Your task to perform on an android device: make emails show in primary in the gmail app Image 0: 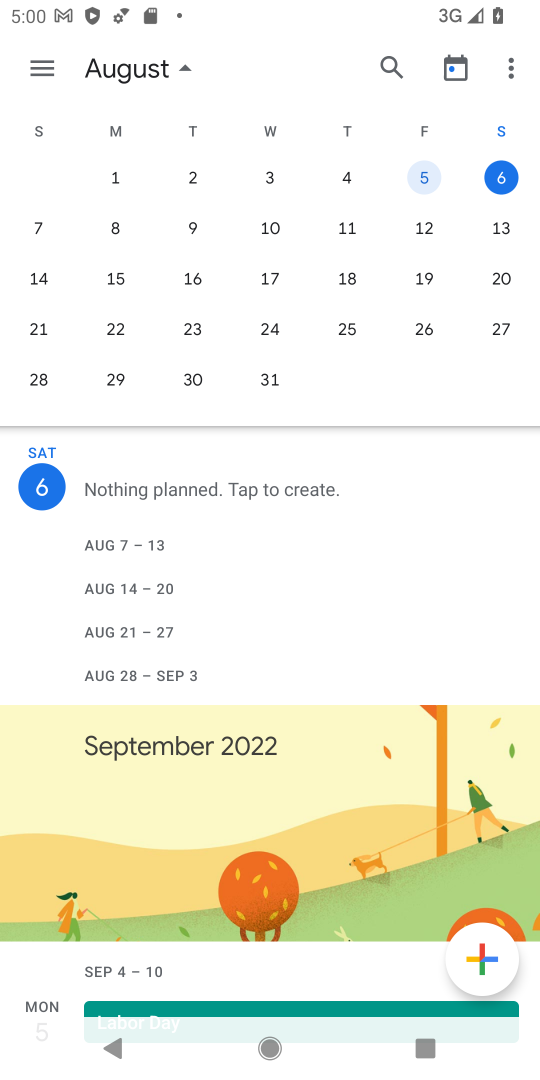
Step 0: task complete